Your task to perform on an android device: Show me the alarms in the clock app Image 0: 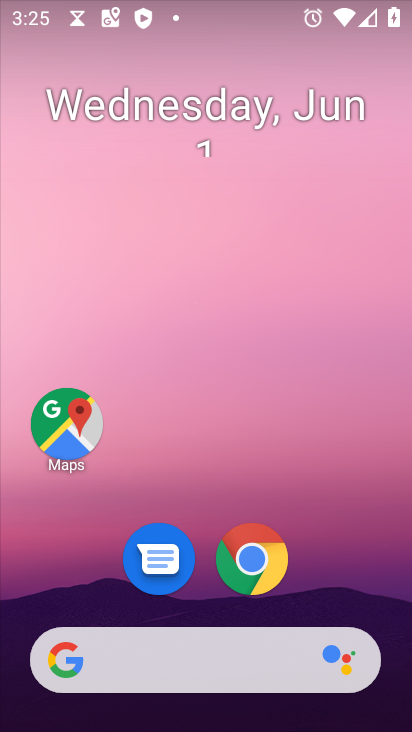
Step 0: drag from (311, 608) to (379, 41)
Your task to perform on an android device: Show me the alarms in the clock app Image 1: 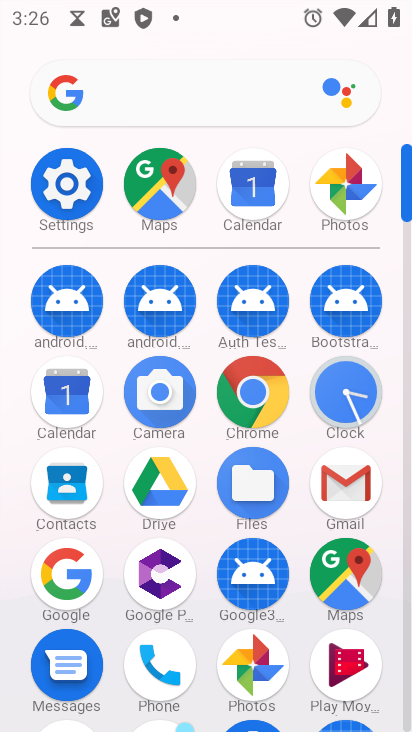
Step 1: click (345, 385)
Your task to perform on an android device: Show me the alarms in the clock app Image 2: 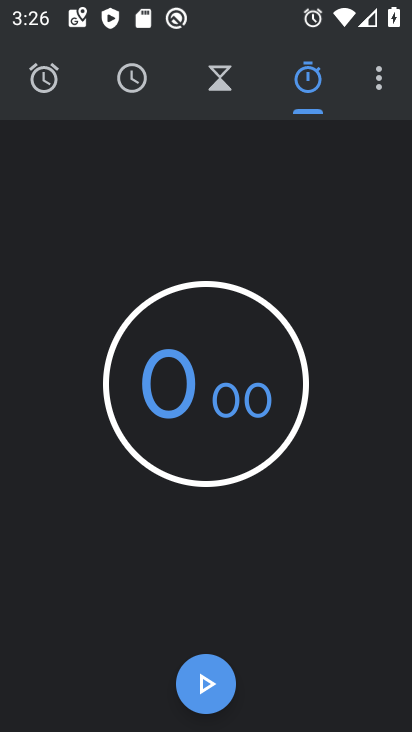
Step 2: click (53, 94)
Your task to perform on an android device: Show me the alarms in the clock app Image 3: 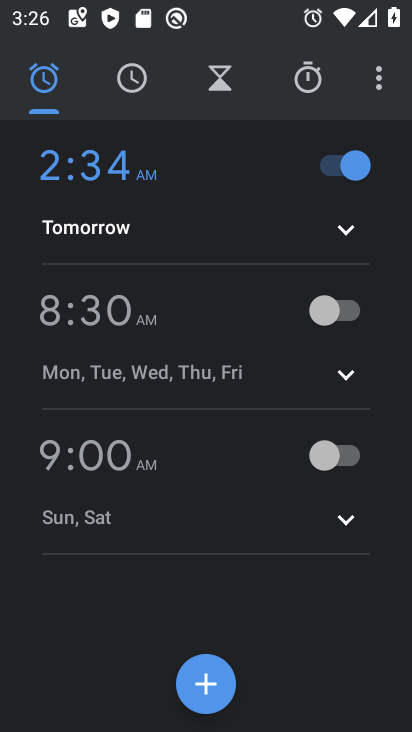
Step 3: task complete